Your task to perform on an android device: Go to calendar. Show me events next week Image 0: 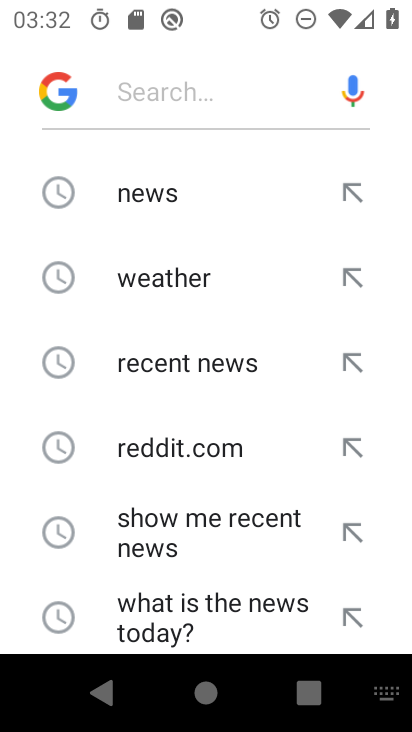
Step 0: press home button
Your task to perform on an android device: Go to calendar. Show me events next week Image 1: 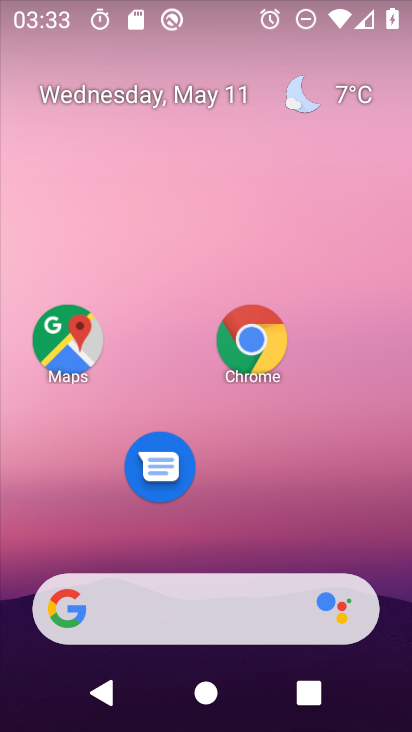
Step 1: drag from (157, 550) to (303, 126)
Your task to perform on an android device: Go to calendar. Show me events next week Image 2: 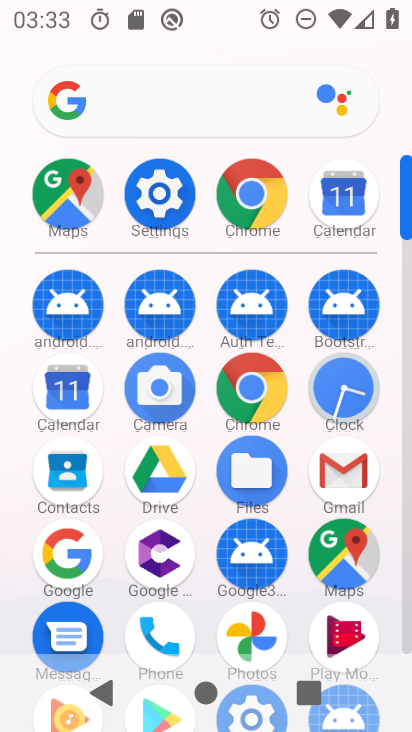
Step 2: click (76, 406)
Your task to perform on an android device: Go to calendar. Show me events next week Image 3: 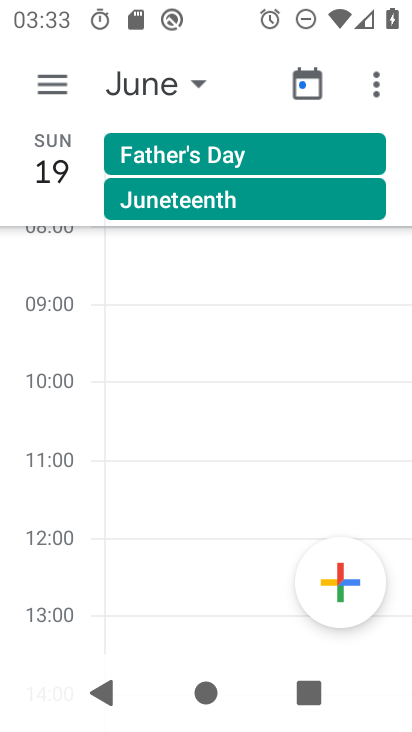
Step 3: click (120, 85)
Your task to perform on an android device: Go to calendar. Show me events next week Image 4: 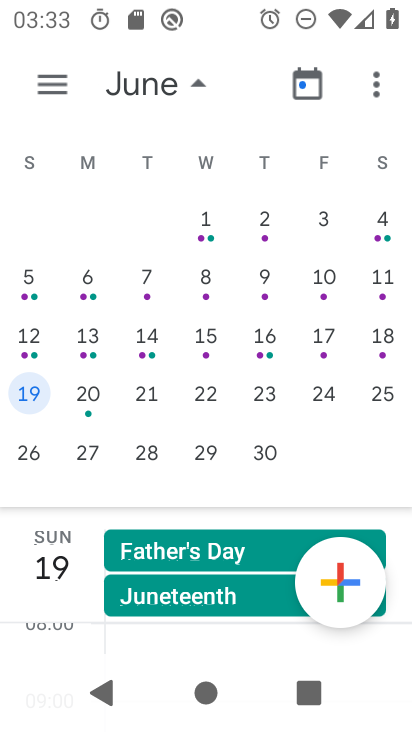
Step 4: drag from (79, 312) to (391, 328)
Your task to perform on an android device: Go to calendar. Show me events next week Image 5: 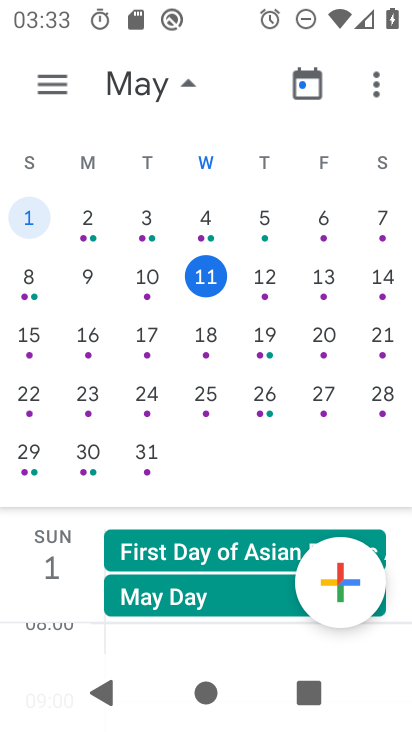
Step 5: drag from (84, 301) to (388, 290)
Your task to perform on an android device: Go to calendar. Show me events next week Image 6: 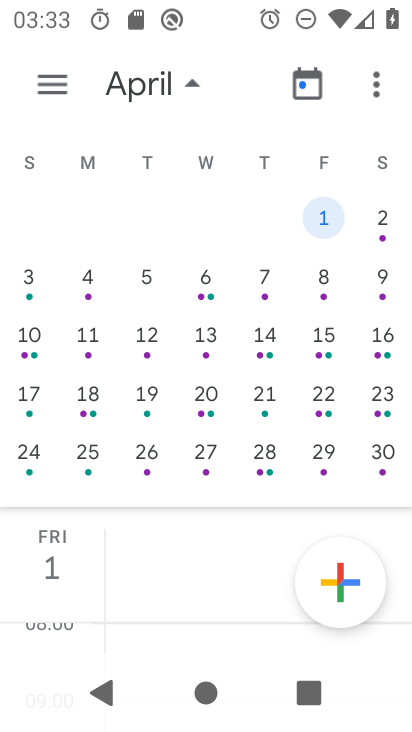
Step 6: drag from (343, 327) to (72, 307)
Your task to perform on an android device: Go to calendar. Show me events next week Image 7: 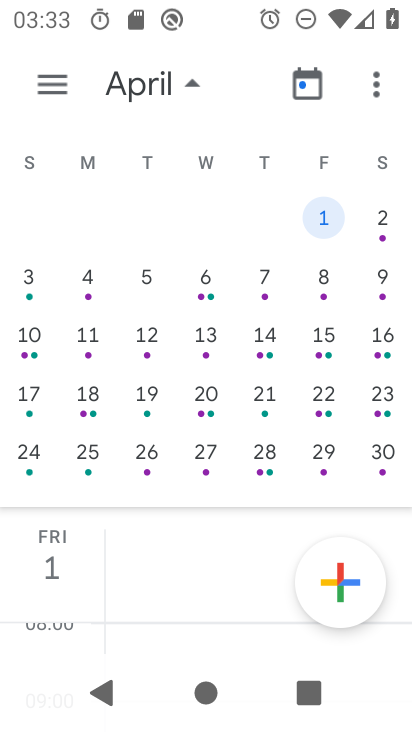
Step 7: drag from (355, 342) to (54, 339)
Your task to perform on an android device: Go to calendar. Show me events next week Image 8: 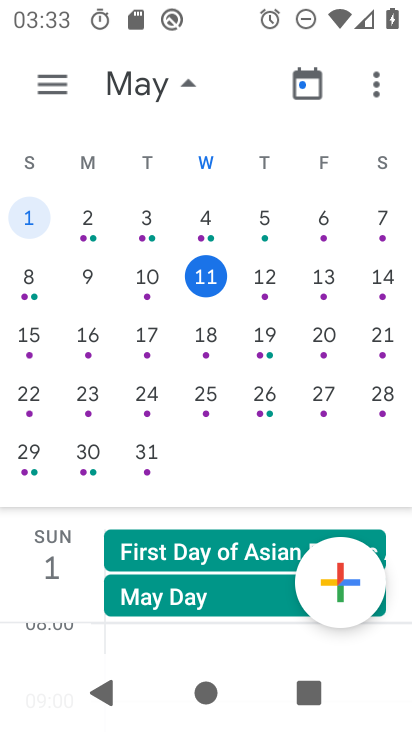
Step 8: click (32, 340)
Your task to perform on an android device: Go to calendar. Show me events next week Image 9: 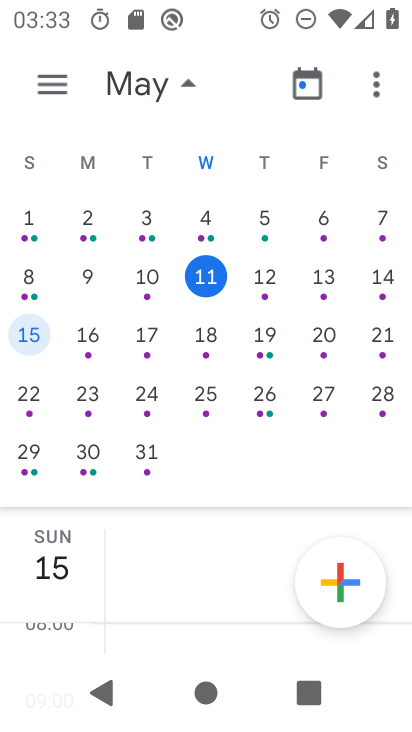
Step 9: click (48, 86)
Your task to perform on an android device: Go to calendar. Show me events next week Image 10: 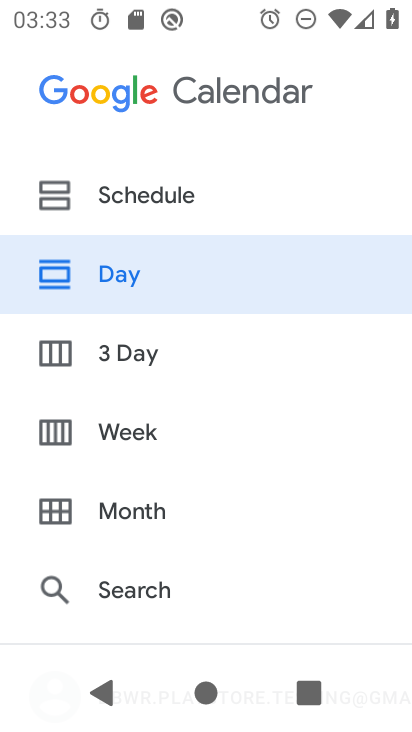
Step 10: click (117, 424)
Your task to perform on an android device: Go to calendar. Show me events next week Image 11: 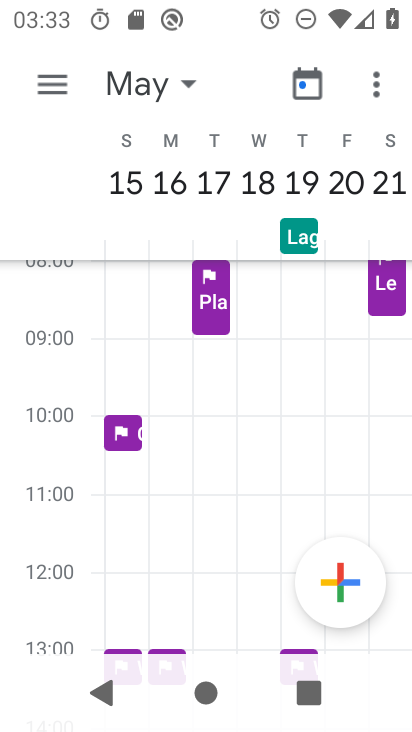
Step 11: click (60, 87)
Your task to perform on an android device: Go to calendar. Show me events next week Image 12: 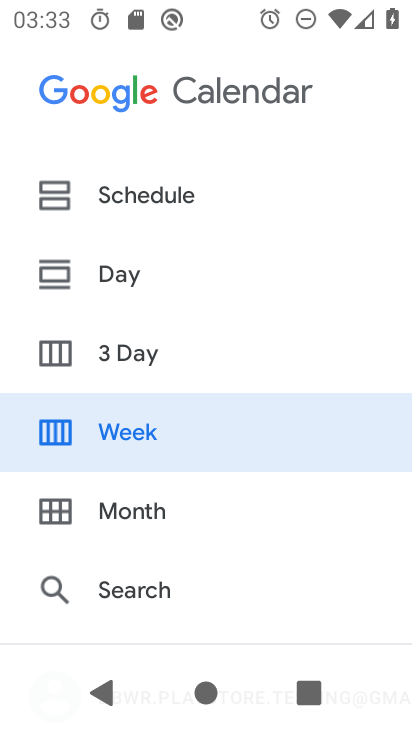
Step 12: click (107, 204)
Your task to perform on an android device: Go to calendar. Show me events next week Image 13: 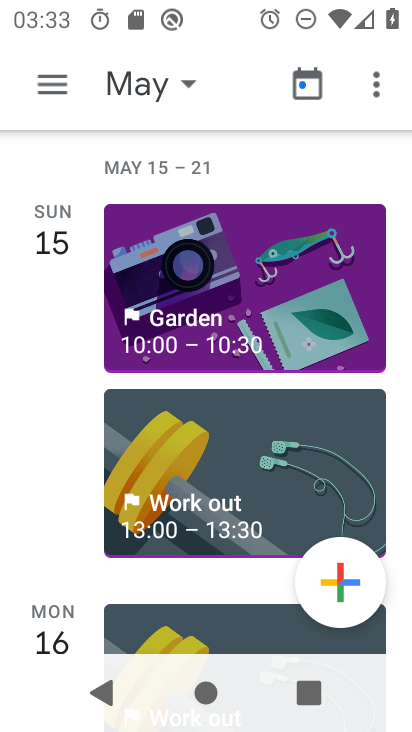
Step 13: task complete